Your task to perform on an android device: create a new album in the google photos Image 0: 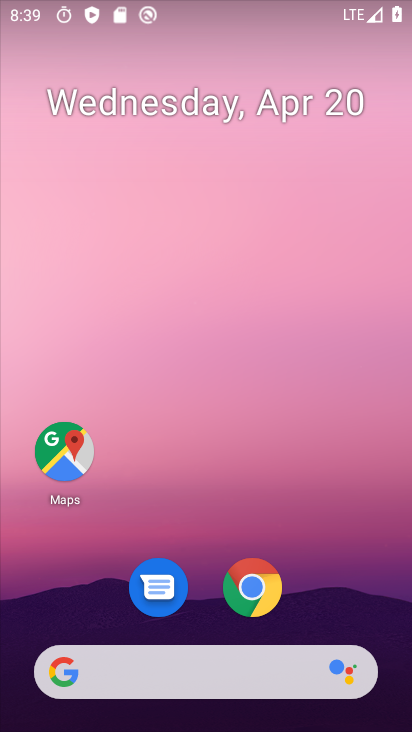
Step 0: drag from (360, 594) to (368, 193)
Your task to perform on an android device: create a new album in the google photos Image 1: 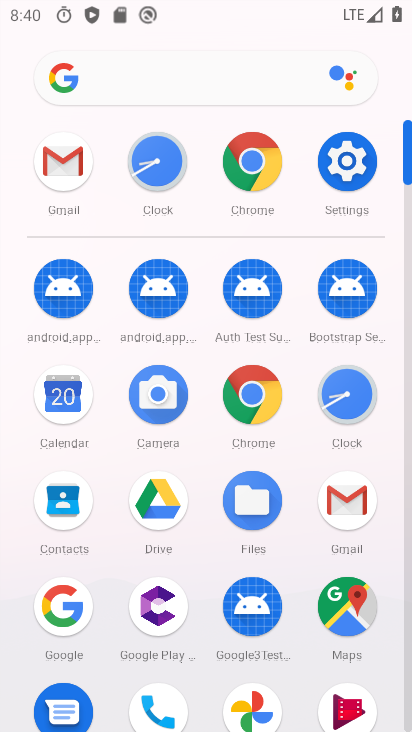
Step 1: drag from (387, 556) to (389, 318)
Your task to perform on an android device: create a new album in the google photos Image 2: 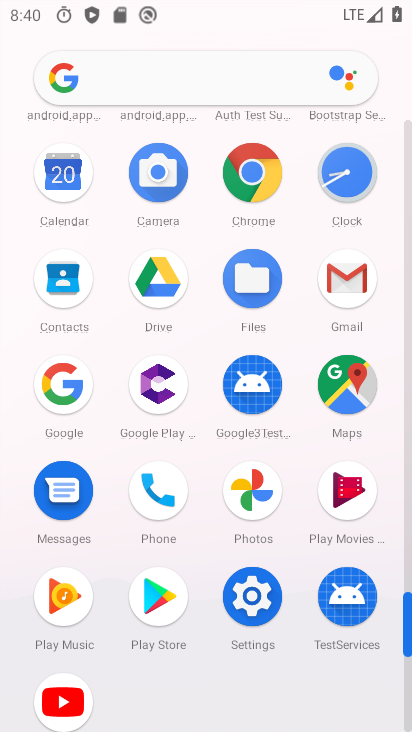
Step 2: click (265, 492)
Your task to perform on an android device: create a new album in the google photos Image 3: 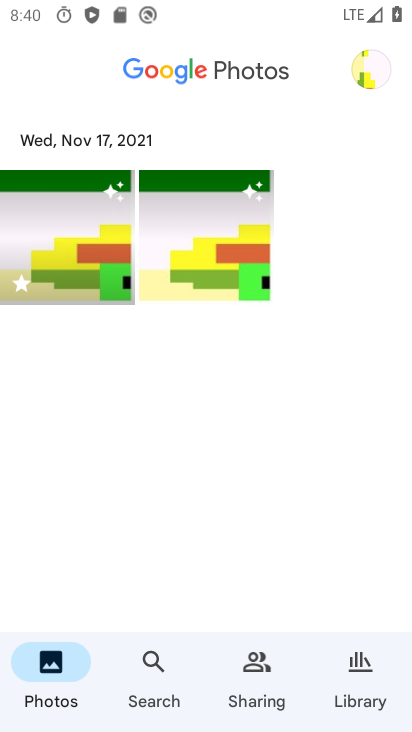
Step 3: click (354, 678)
Your task to perform on an android device: create a new album in the google photos Image 4: 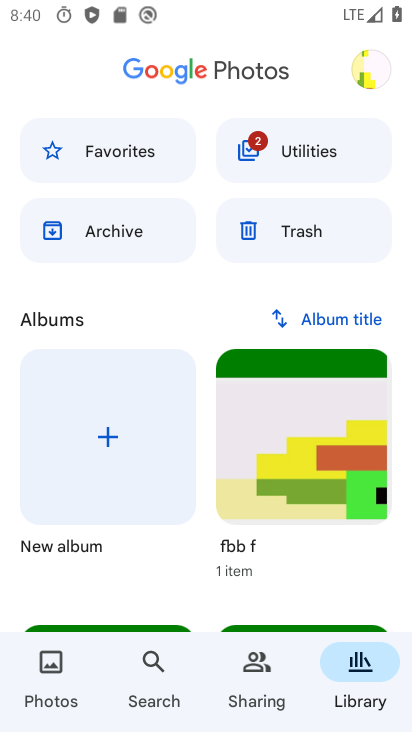
Step 4: click (109, 479)
Your task to perform on an android device: create a new album in the google photos Image 5: 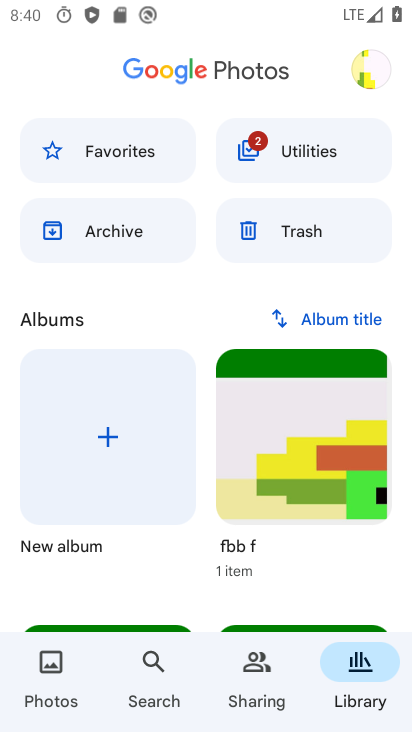
Step 5: click (109, 479)
Your task to perform on an android device: create a new album in the google photos Image 6: 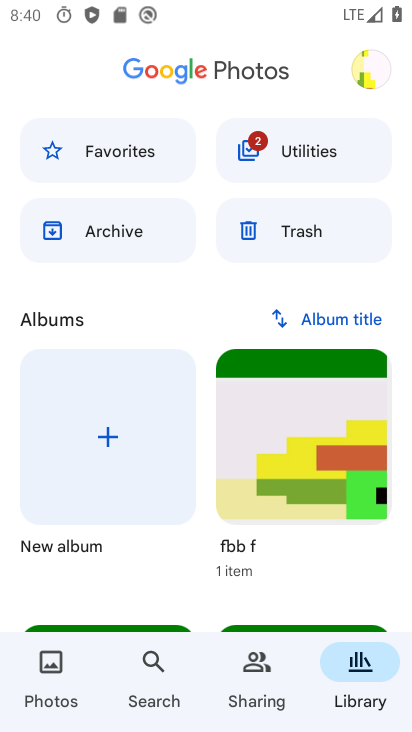
Step 6: click (121, 445)
Your task to perform on an android device: create a new album in the google photos Image 7: 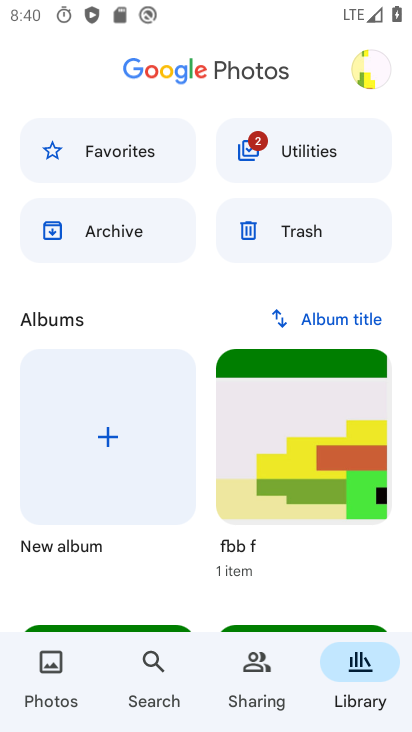
Step 7: click (94, 545)
Your task to perform on an android device: create a new album in the google photos Image 8: 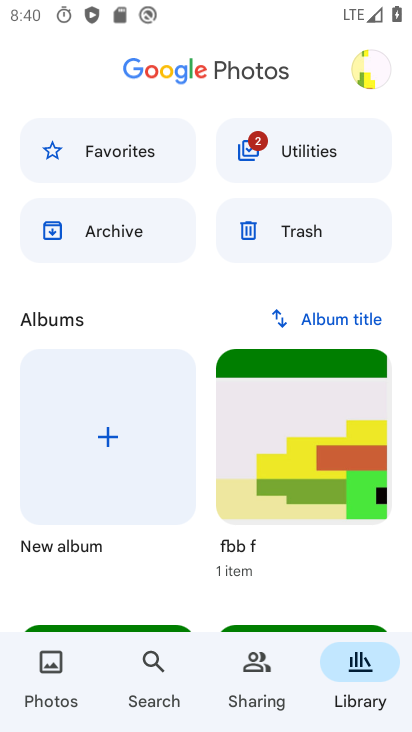
Step 8: click (106, 450)
Your task to perform on an android device: create a new album in the google photos Image 9: 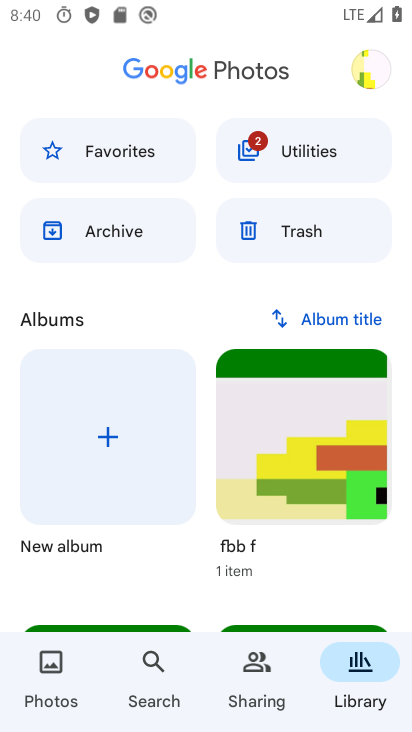
Step 9: click (121, 412)
Your task to perform on an android device: create a new album in the google photos Image 10: 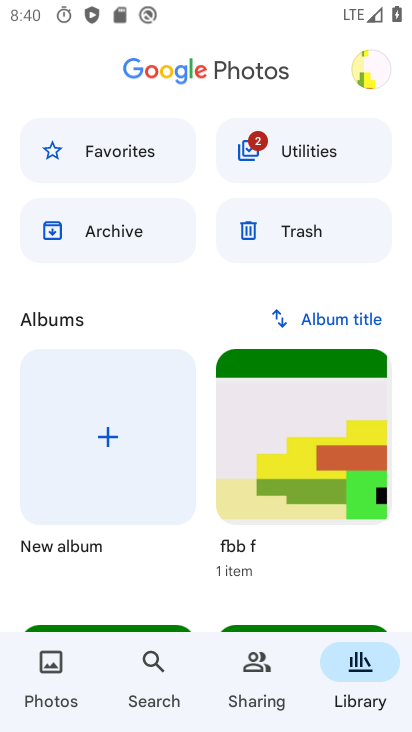
Step 10: click (109, 437)
Your task to perform on an android device: create a new album in the google photos Image 11: 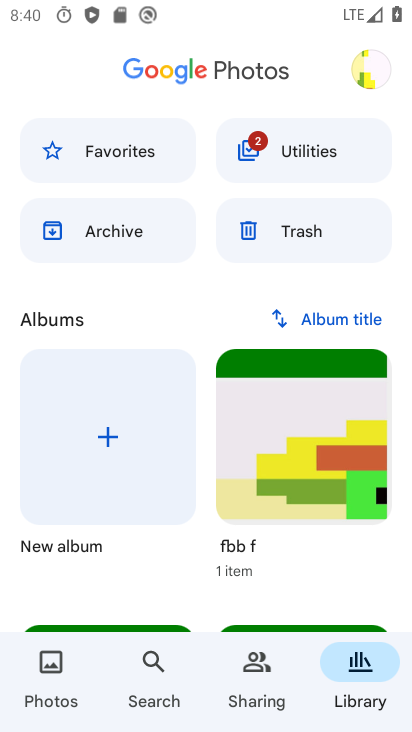
Step 11: click (123, 427)
Your task to perform on an android device: create a new album in the google photos Image 12: 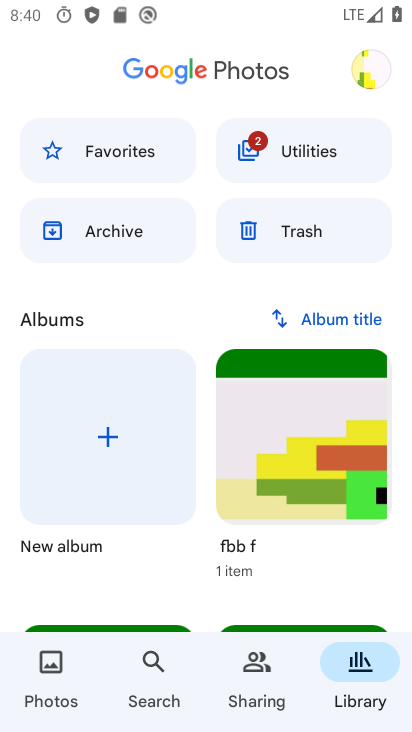
Step 12: click (120, 435)
Your task to perform on an android device: create a new album in the google photos Image 13: 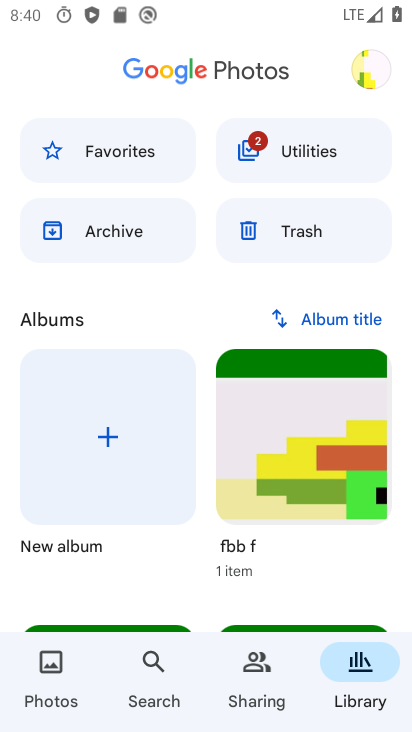
Step 13: task complete